Your task to perform on an android device: What's the weather going to be this weekend? Image 0: 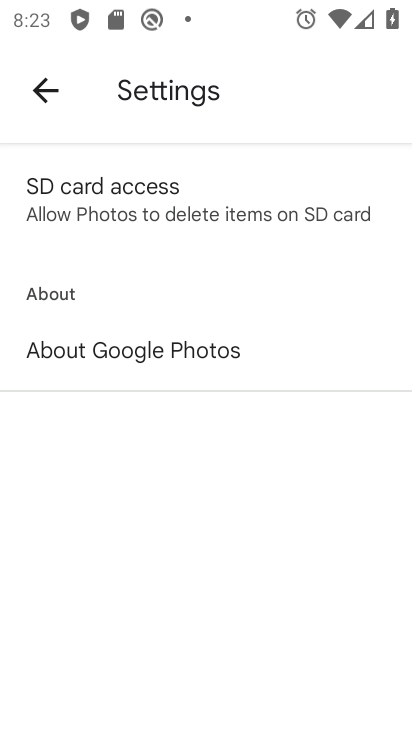
Step 0: press home button
Your task to perform on an android device: What's the weather going to be this weekend? Image 1: 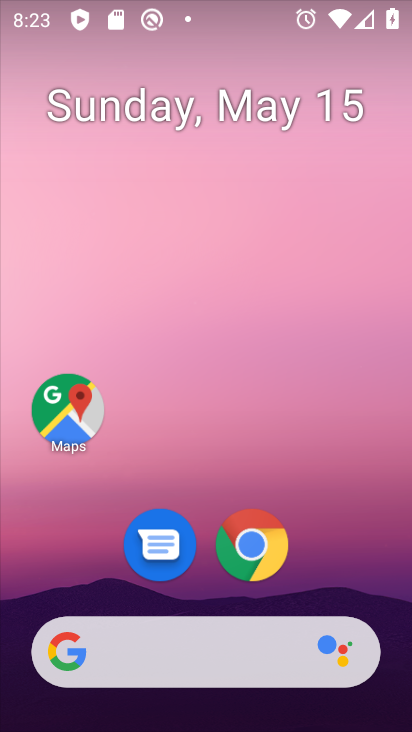
Step 1: click (217, 658)
Your task to perform on an android device: What's the weather going to be this weekend? Image 2: 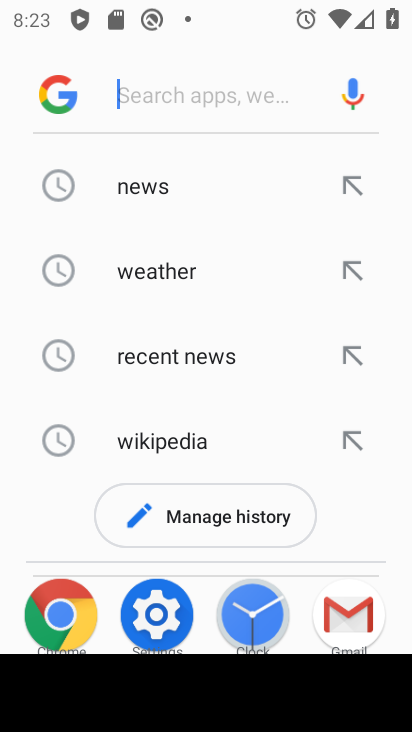
Step 2: click (152, 278)
Your task to perform on an android device: What's the weather going to be this weekend? Image 3: 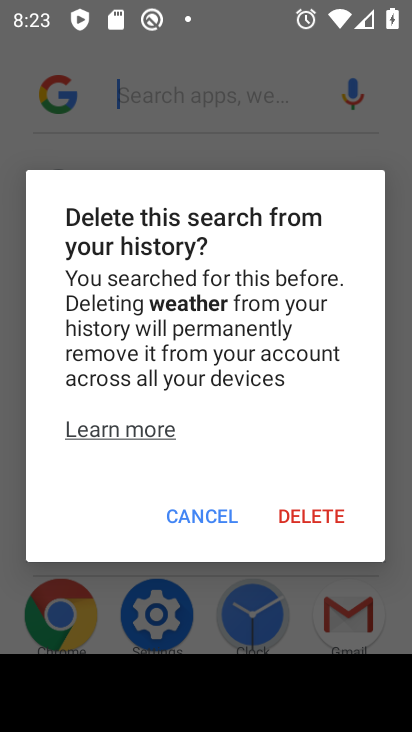
Step 3: click (208, 507)
Your task to perform on an android device: What's the weather going to be this weekend? Image 4: 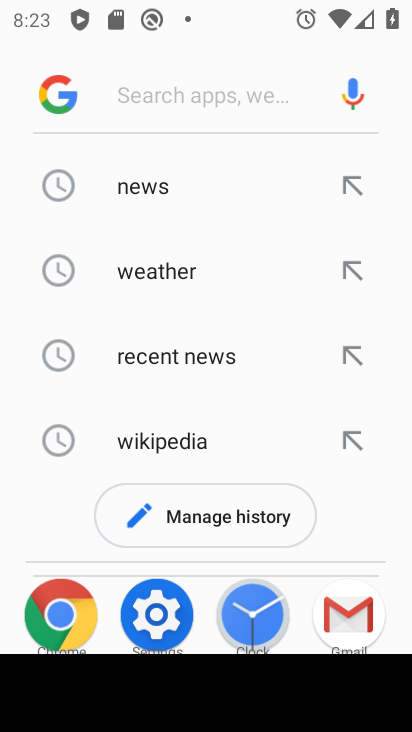
Step 4: click (147, 282)
Your task to perform on an android device: What's the weather going to be this weekend? Image 5: 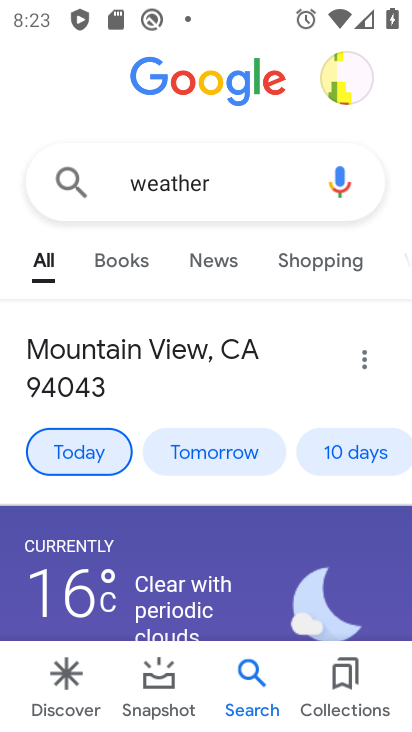
Step 5: click (358, 453)
Your task to perform on an android device: What's the weather going to be this weekend? Image 6: 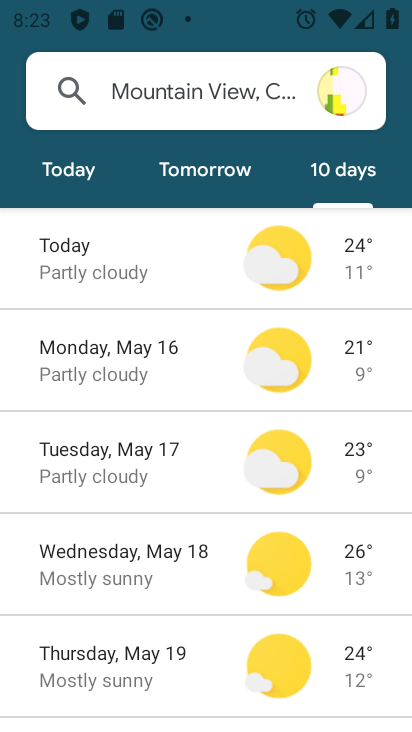
Step 6: task complete